Your task to perform on an android device: change the clock display to digital Image 0: 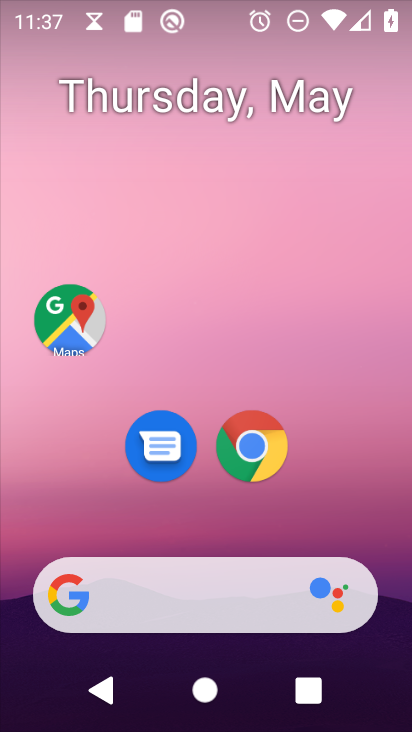
Step 0: drag from (270, 648) to (266, 351)
Your task to perform on an android device: change the clock display to digital Image 1: 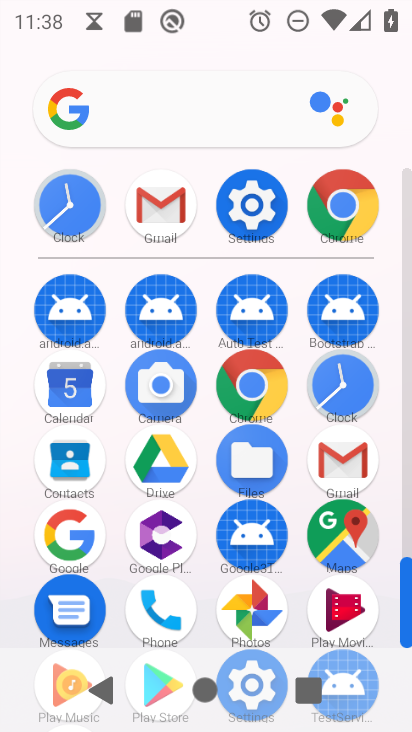
Step 1: click (337, 372)
Your task to perform on an android device: change the clock display to digital Image 2: 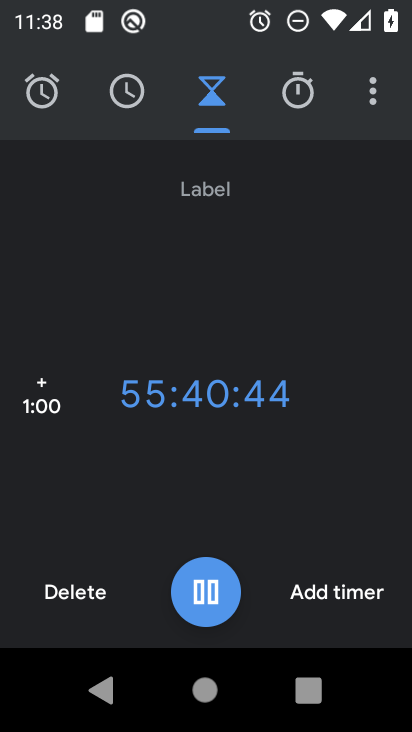
Step 2: click (370, 105)
Your task to perform on an android device: change the clock display to digital Image 3: 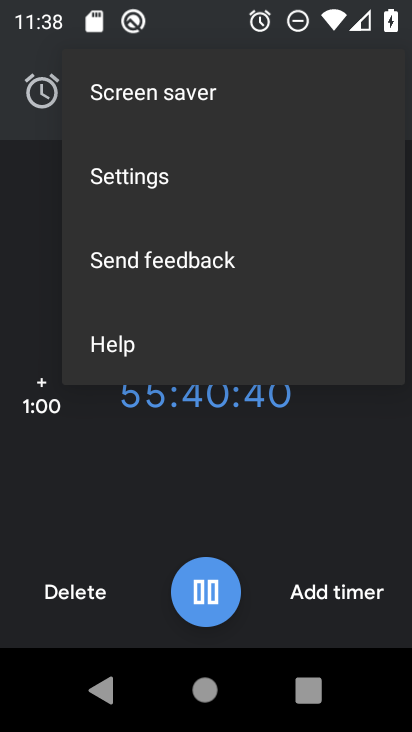
Step 3: click (200, 187)
Your task to perform on an android device: change the clock display to digital Image 4: 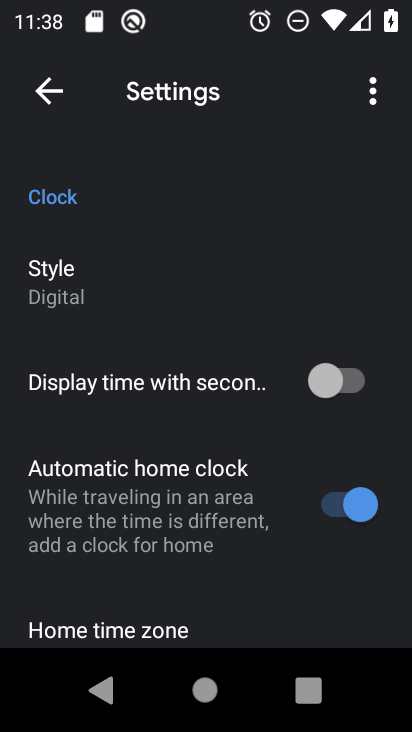
Step 4: click (161, 272)
Your task to perform on an android device: change the clock display to digital Image 5: 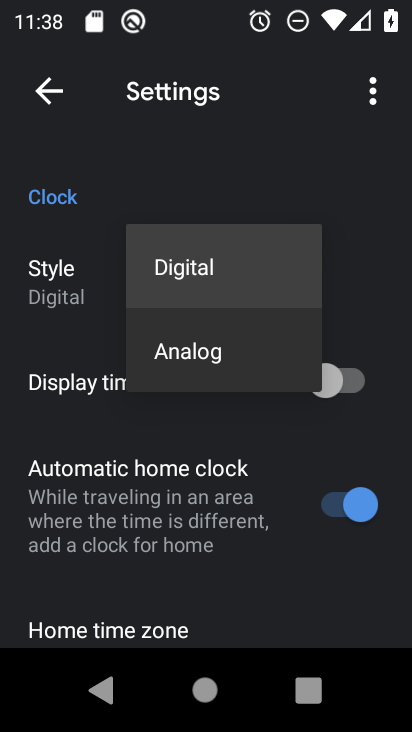
Step 5: click (206, 281)
Your task to perform on an android device: change the clock display to digital Image 6: 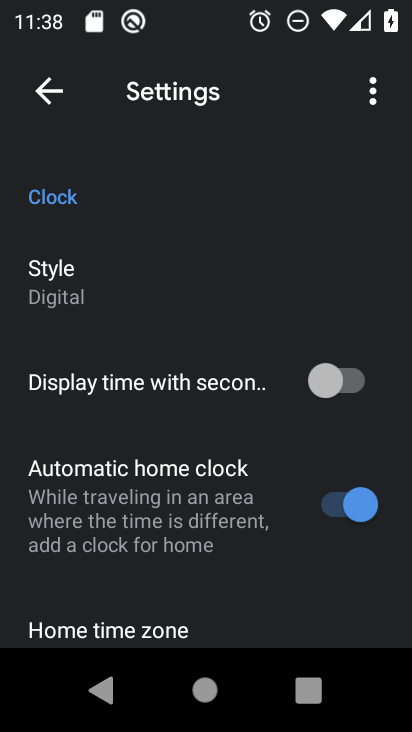
Step 6: task complete